Your task to perform on an android device: Search for seafood restaurants on Google Maps Image 0: 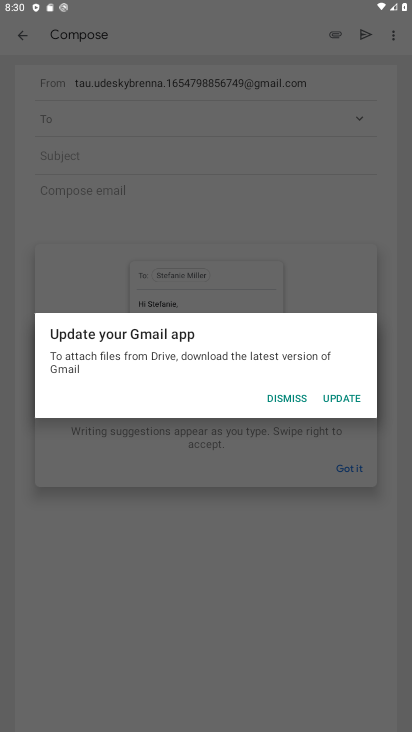
Step 0: press home button
Your task to perform on an android device: Search for seafood restaurants on Google Maps Image 1: 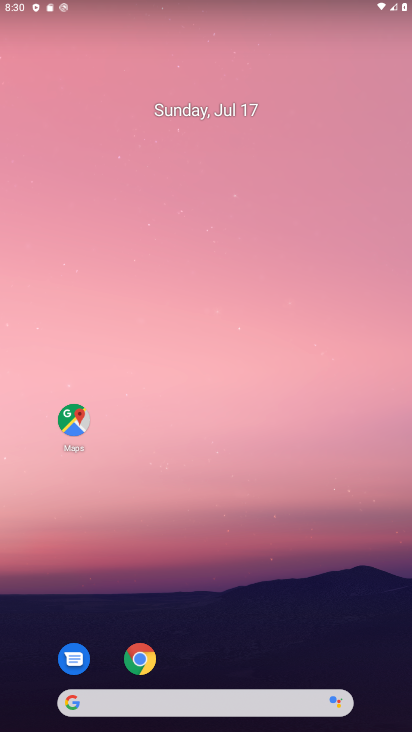
Step 1: click (72, 423)
Your task to perform on an android device: Search for seafood restaurants on Google Maps Image 2: 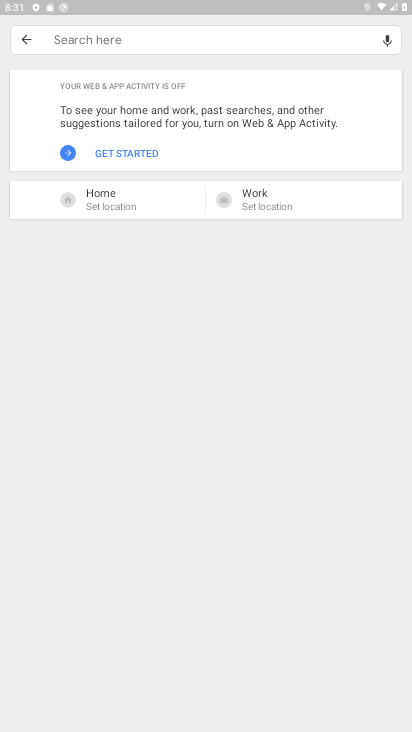
Step 2: click (214, 44)
Your task to perform on an android device: Search for seafood restaurants on Google Maps Image 3: 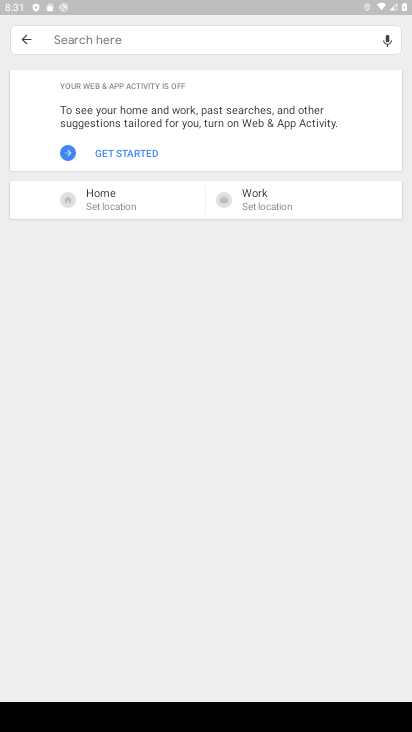
Step 3: type "seafood restaurants"
Your task to perform on an android device: Search for seafood restaurants on Google Maps Image 4: 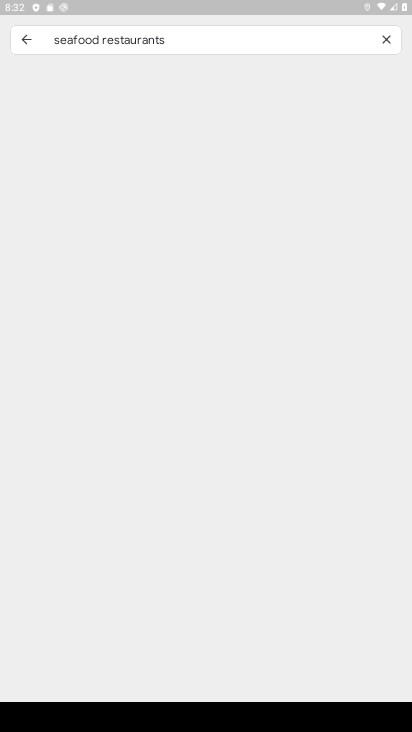
Step 4: task complete